Your task to perform on an android device: visit the assistant section in the google photos Image 0: 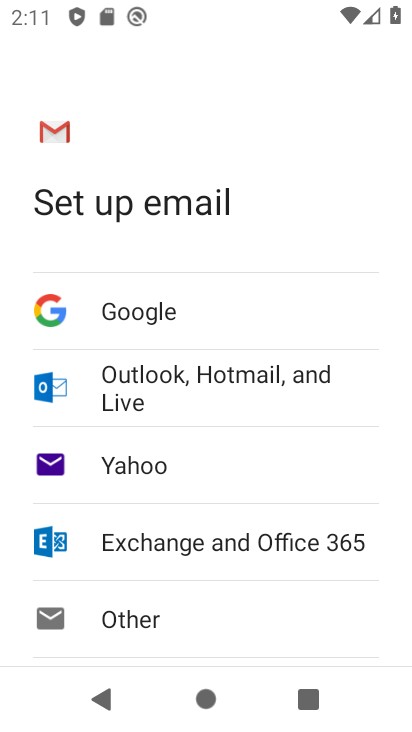
Step 0: press home button
Your task to perform on an android device: visit the assistant section in the google photos Image 1: 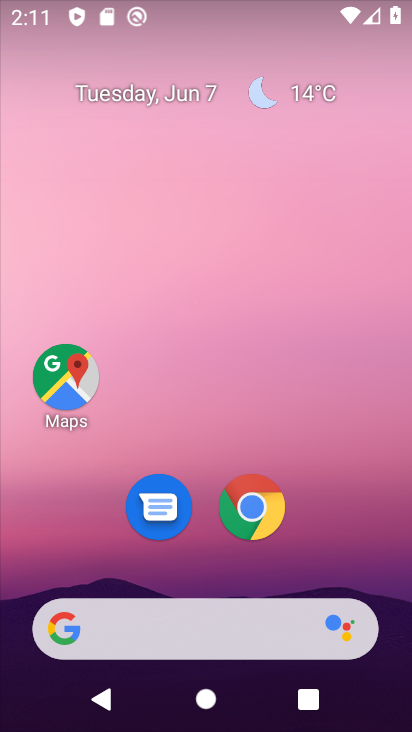
Step 1: drag from (342, 518) to (282, 112)
Your task to perform on an android device: visit the assistant section in the google photos Image 2: 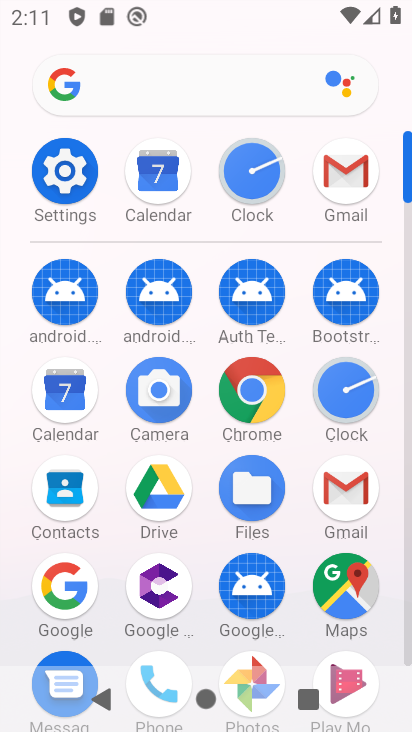
Step 2: drag from (303, 556) to (308, 287)
Your task to perform on an android device: visit the assistant section in the google photos Image 3: 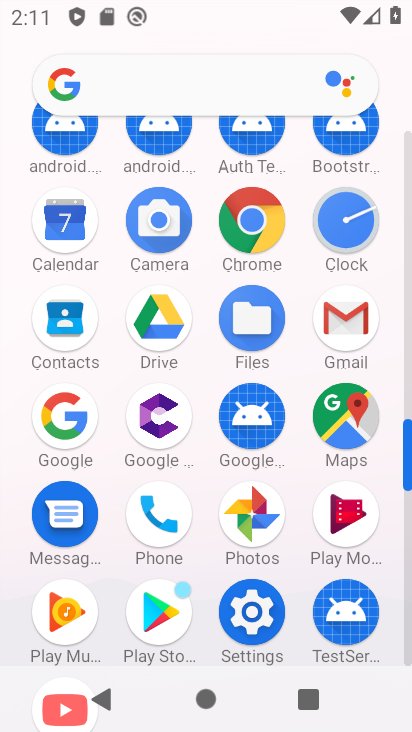
Step 3: click (254, 514)
Your task to perform on an android device: visit the assistant section in the google photos Image 4: 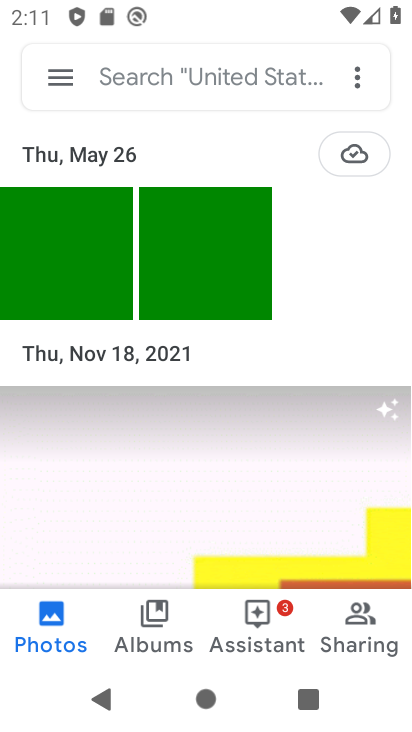
Step 4: click (266, 608)
Your task to perform on an android device: visit the assistant section in the google photos Image 5: 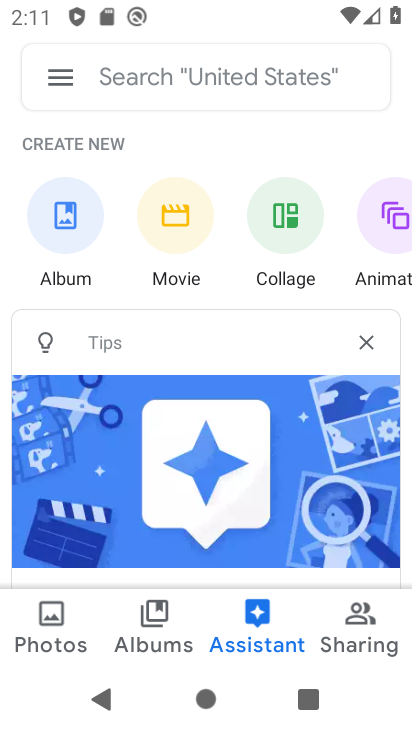
Step 5: task complete